Your task to perform on an android device: turn on notifications settings in the gmail app Image 0: 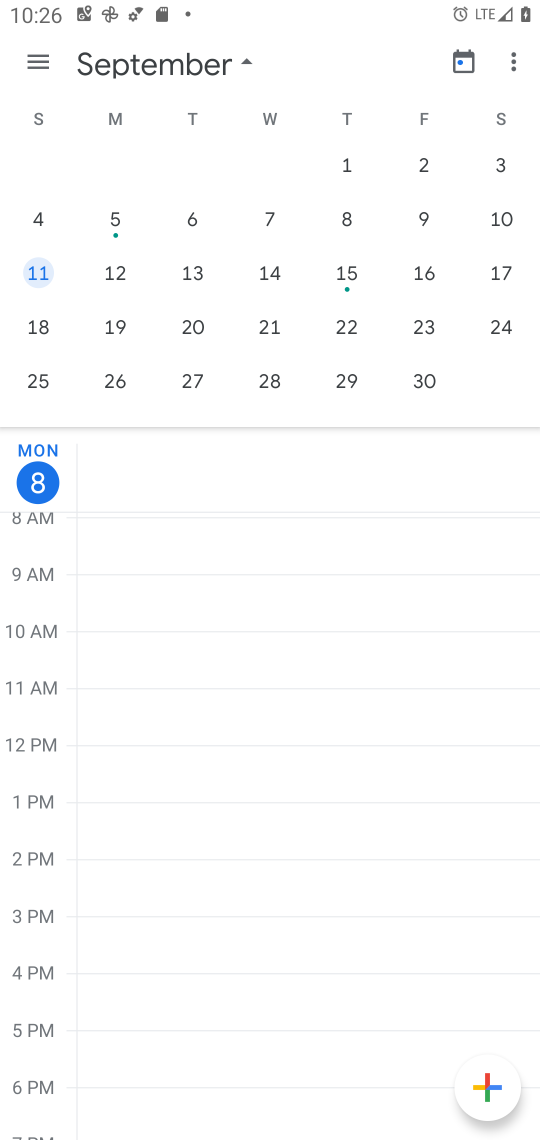
Step 0: press home button
Your task to perform on an android device: turn on notifications settings in the gmail app Image 1: 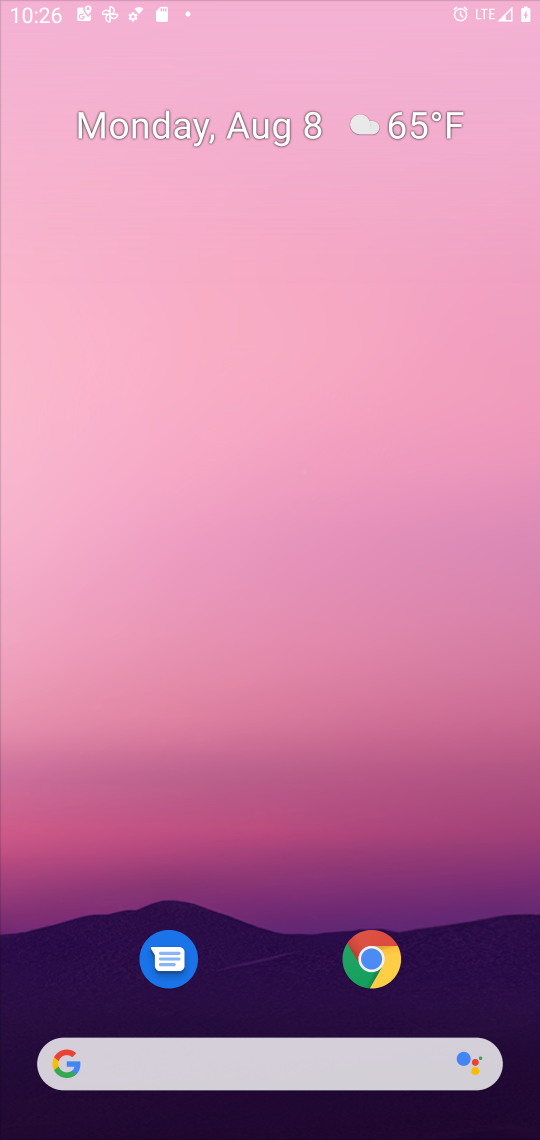
Step 1: drag from (511, 981) to (128, 16)
Your task to perform on an android device: turn on notifications settings in the gmail app Image 2: 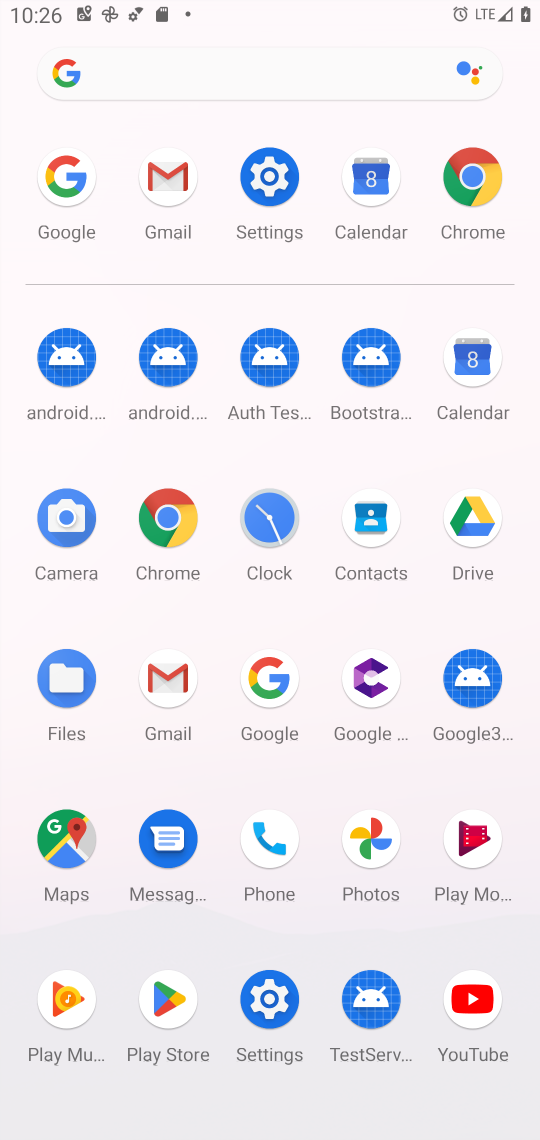
Step 2: click (179, 672)
Your task to perform on an android device: turn on notifications settings in the gmail app Image 3: 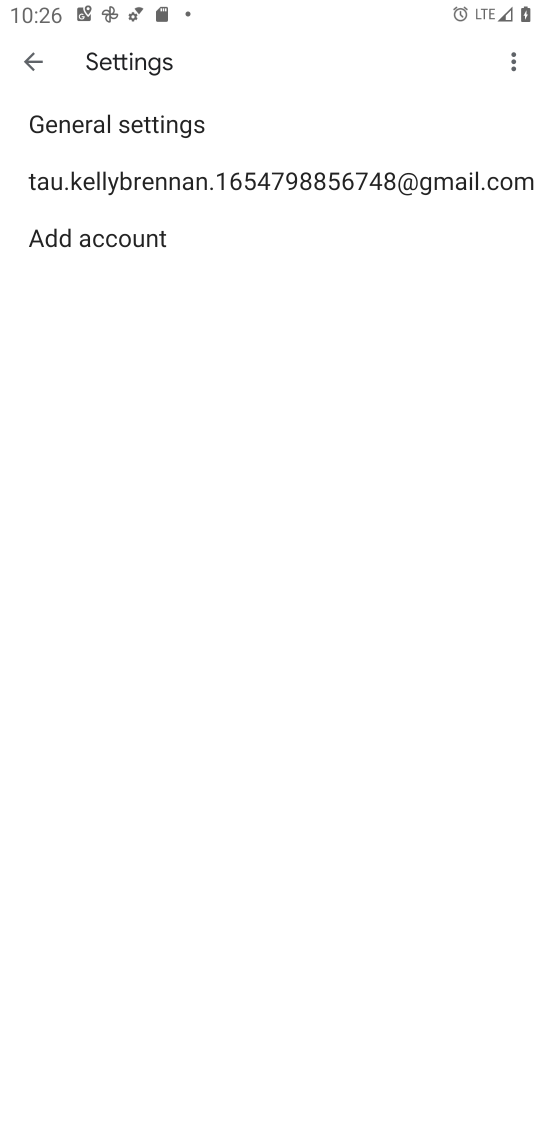
Step 3: click (293, 200)
Your task to perform on an android device: turn on notifications settings in the gmail app Image 4: 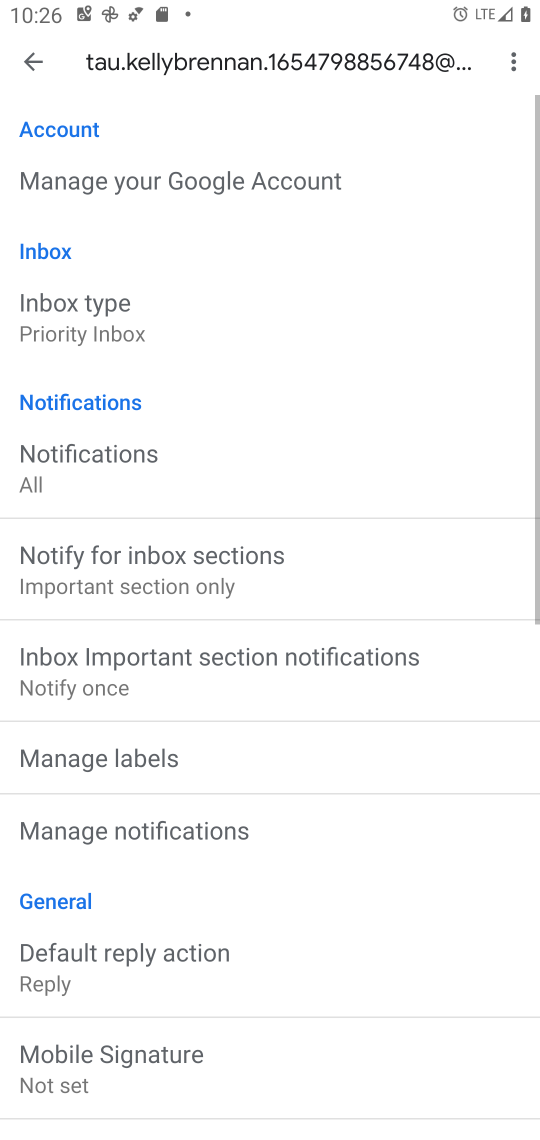
Step 4: click (103, 500)
Your task to perform on an android device: turn on notifications settings in the gmail app Image 5: 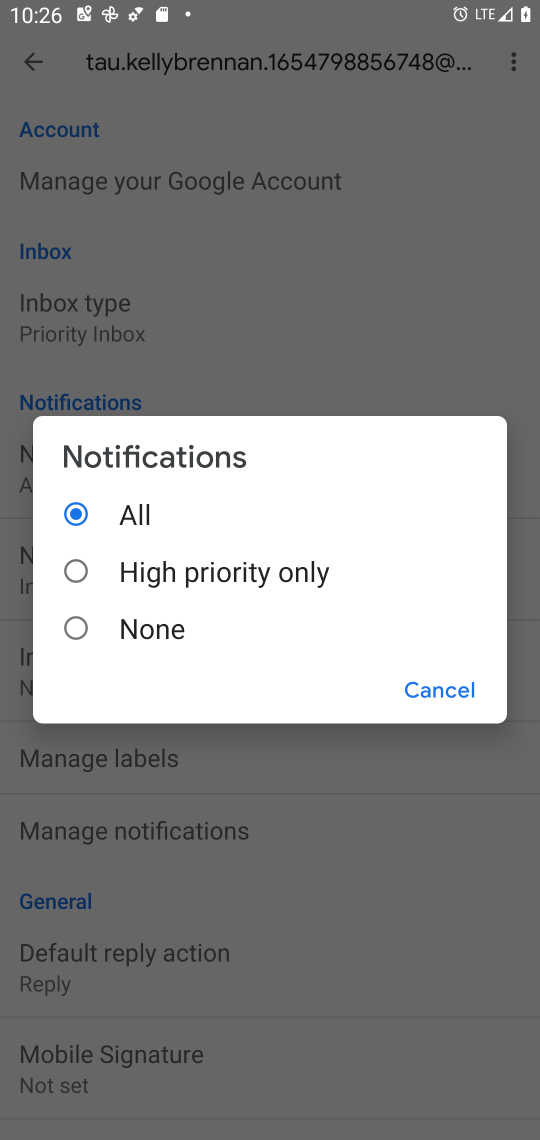
Step 5: click (136, 512)
Your task to perform on an android device: turn on notifications settings in the gmail app Image 6: 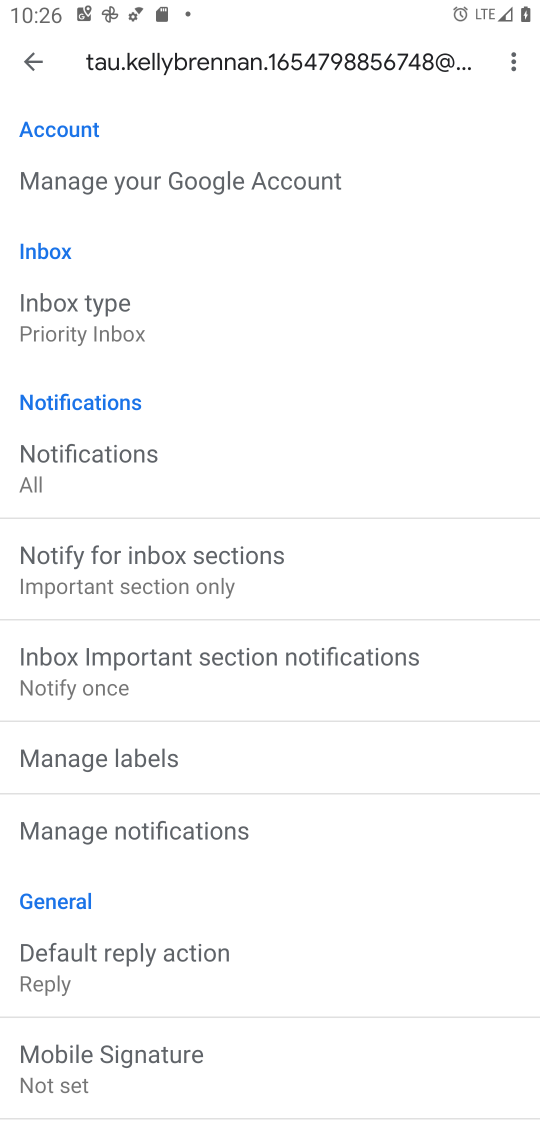
Step 6: task complete